Your task to perform on an android device: What's the weather going to be this weekend? Image 0: 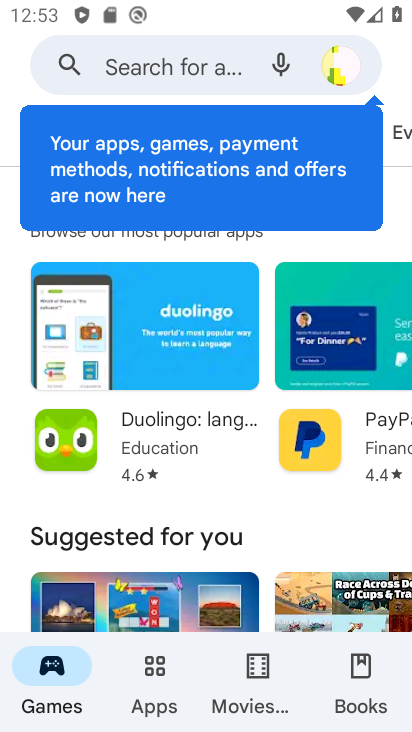
Step 0: press home button
Your task to perform on an android device: What's the weather going to be this weekend? Image 1: 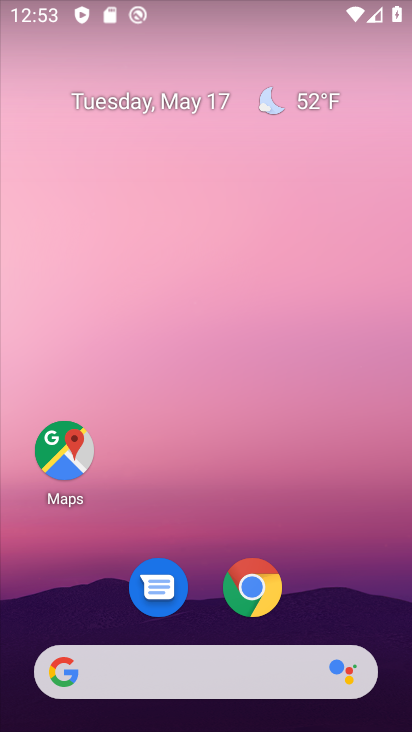
Step 1: drag from (377, 627) to (327, 128)
Your task to perform on an android device: What's the weather going to be this weekend? Image 2: 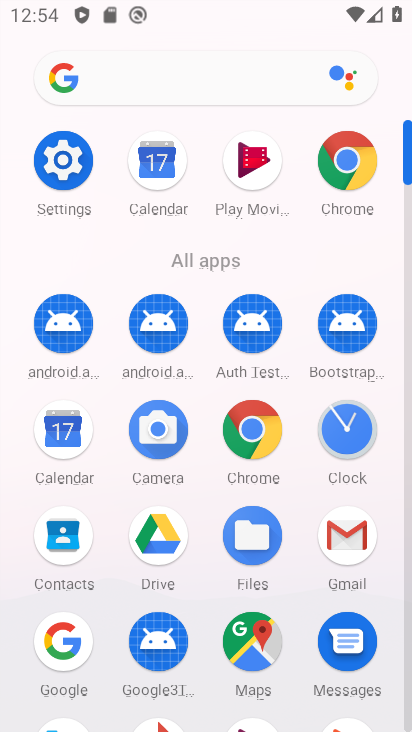
Step 2: click (81, 174)
Your task to perform on an android device: What's the weather going to be this weekend? Image 3: 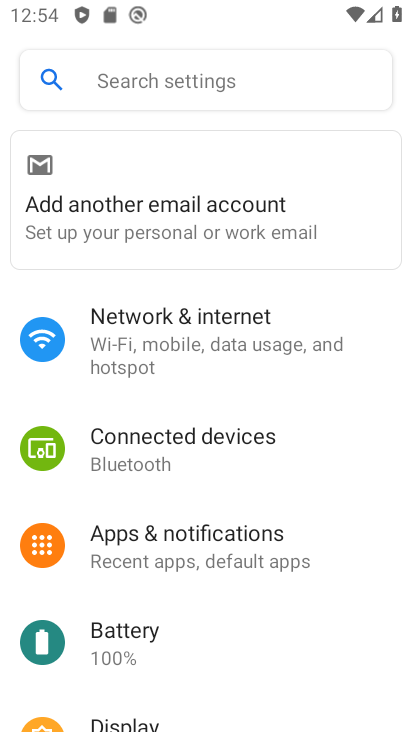
Step 3: press home button
Your task to perform on an android device: What's the weather going to be this weekend? Image 4: 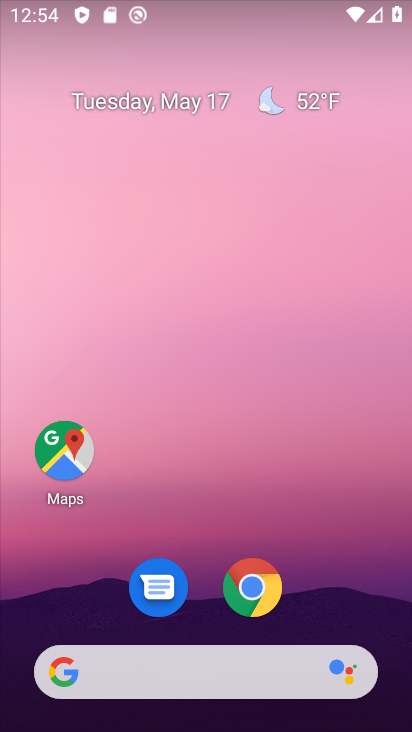
Step 4: drag from (318, 600) to (277, 167)
Your task to perform on an android device: What's the weather going to be this weekend? Image 5: 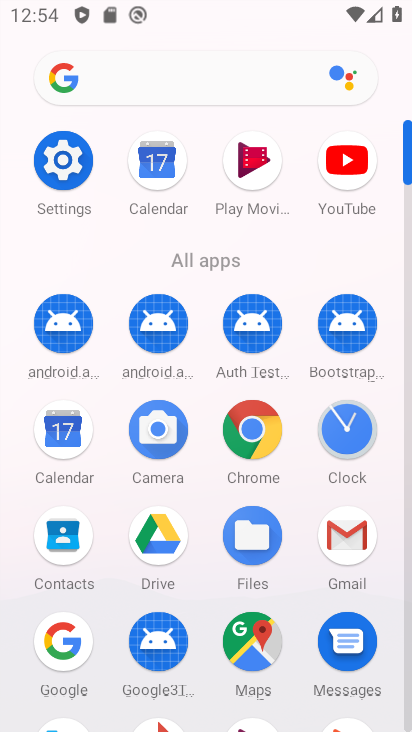
Step 5: click (68, 455)
Your task to perform on an android device: What's the weather going to be this weekend? Image 6: 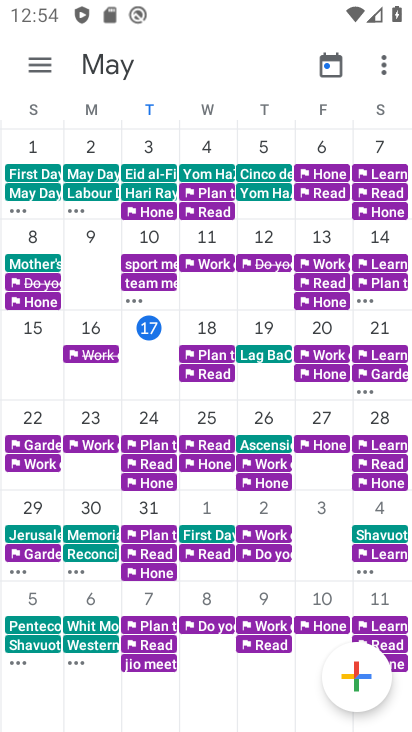
Step 6: task complete